Your task to perform on an android device: toggle show notifications on the lock screen Image 0: 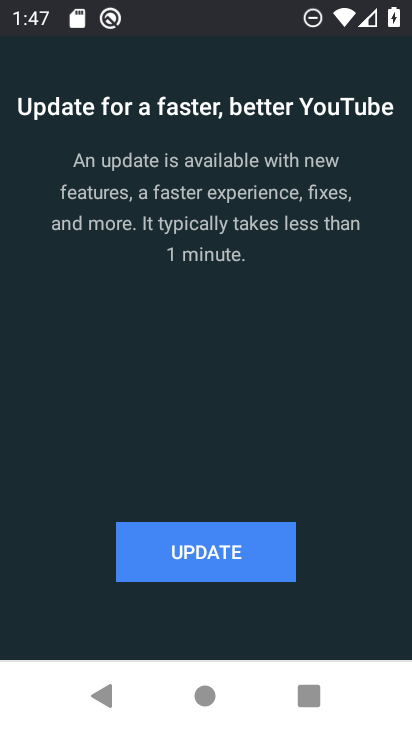
Step 0: press home button
Your task to perform on an android device: toggle show notifications on the lock screen Image 1: 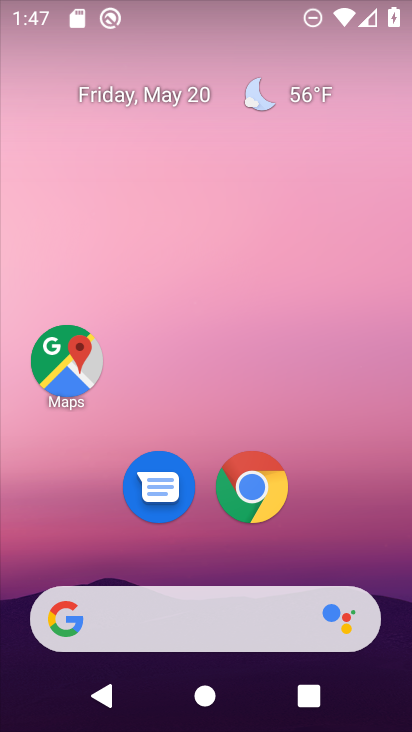
Step 1: drag from (210, 550) to (241, 84)
Your task to perform on an android device: toggle show notifications on the lock screen Image 2: 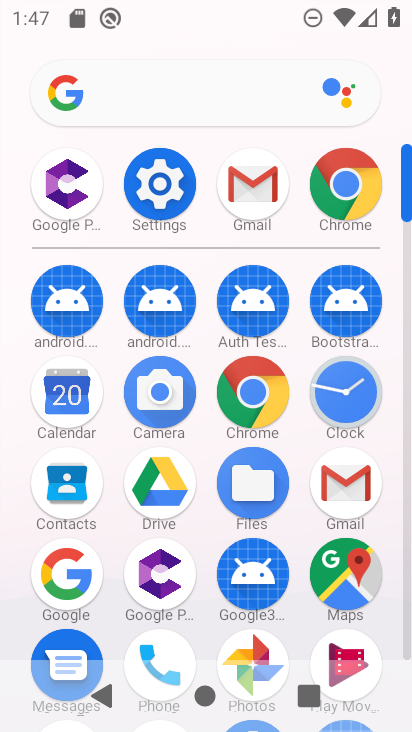
Step 2: click (155, 176)
Your task to perform on an android device: toggle show notifications on the lock screen Image 3: 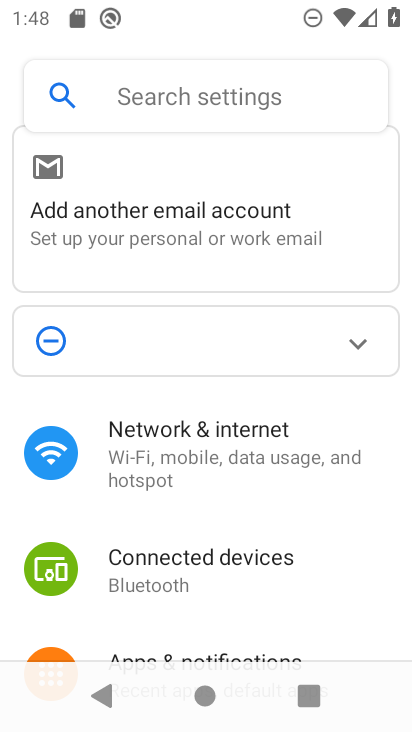
Step 3: drag from (208, 635) to (249, 271)
Your task to perform on an android device: toggle show notifications on the lock screen Image 4: 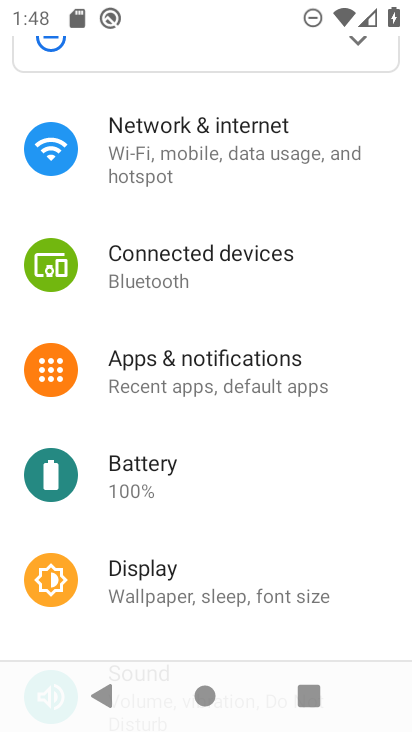
Step 4: click (207, 374)
Your task to perform on an android device: toggle show notifications on the lock screen Image 5: 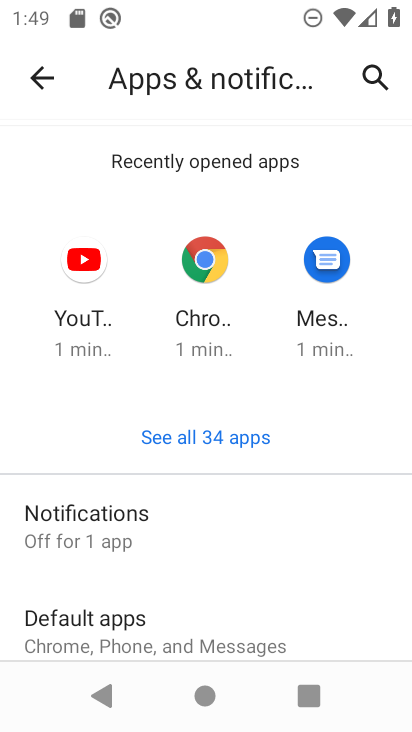
Step 5: click (145, 511)
Your task to perform on an android device: toggle show notifications on the lock screen Image 6: 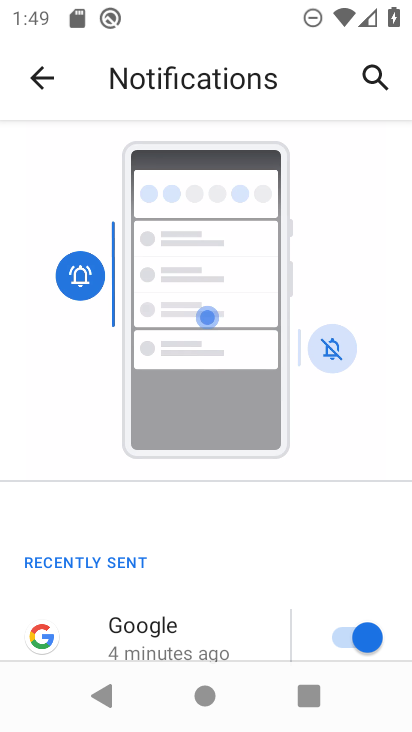
Step 6: drag from (240, 624) to (315, 158)
Your task to perform on an android device: toggle show notifications on the lock screen Image 7: 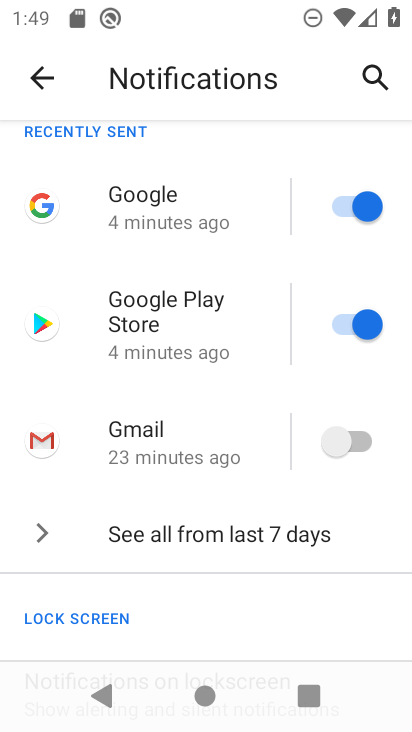
Step 7: drag from (218, 591) to (243, 120)
Your task to perform on an android device: toggle show notifications on the lock screen Image 8: 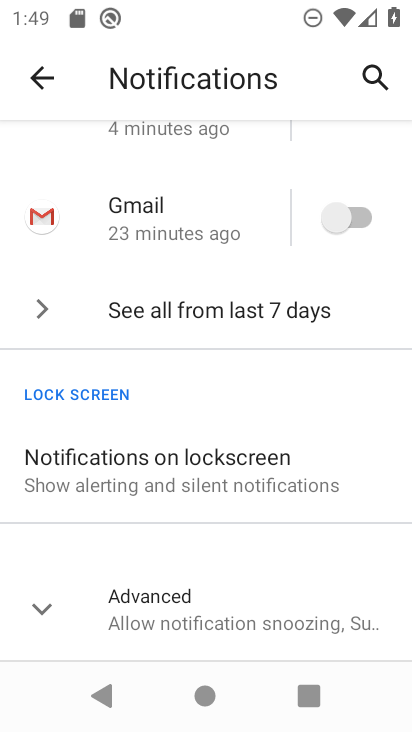
Step 8: click (195, 466)
Your task to perform on an android device: toggle show notifications on the lock screen Image 9: 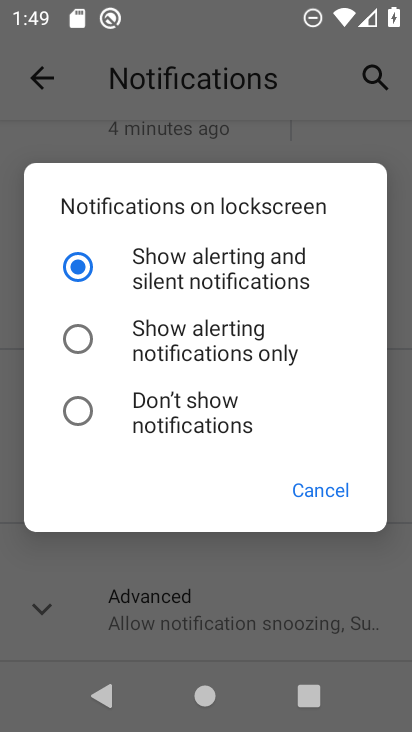
Step 9: click (75, 335)
Your task to perform on an android device: toggle show notifications on the lock screen Image 10: 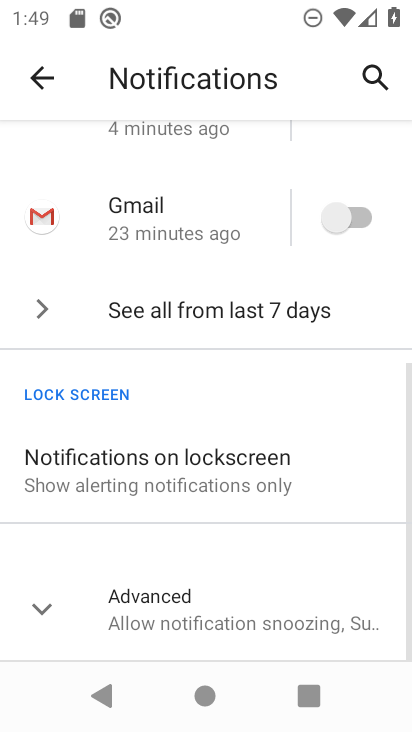
Step 10: task complete